Your task to perform on an android device: turn on airplane mode Image 0: 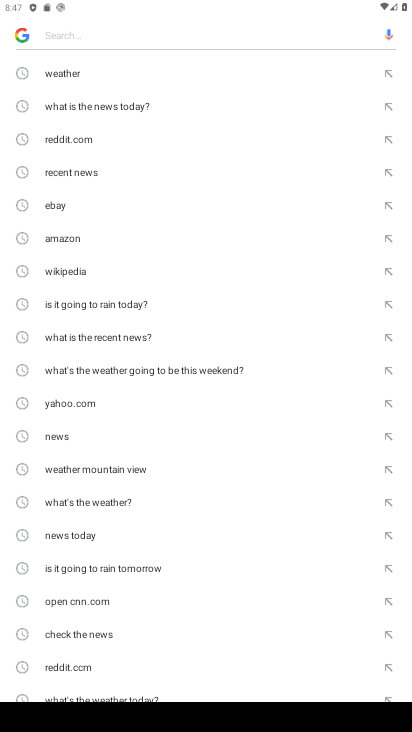
Step 0: press home button
Your task to perform on an android device: turn on airplane mode Image 1: 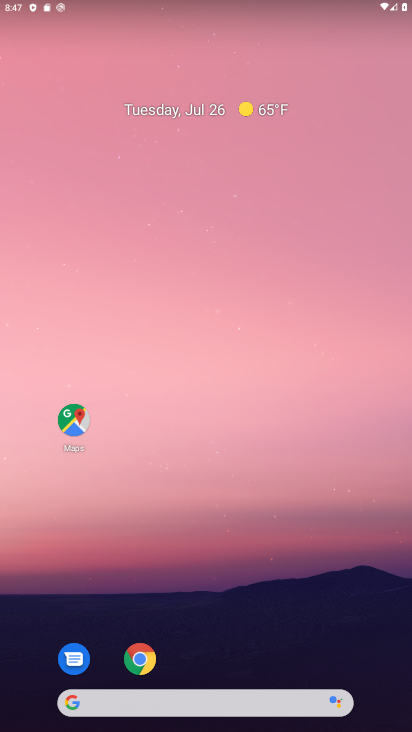
Step 1: drag from (251, 589) to (220, 287)
Your task to perform on an android device: turn on airplane mode Image 2: 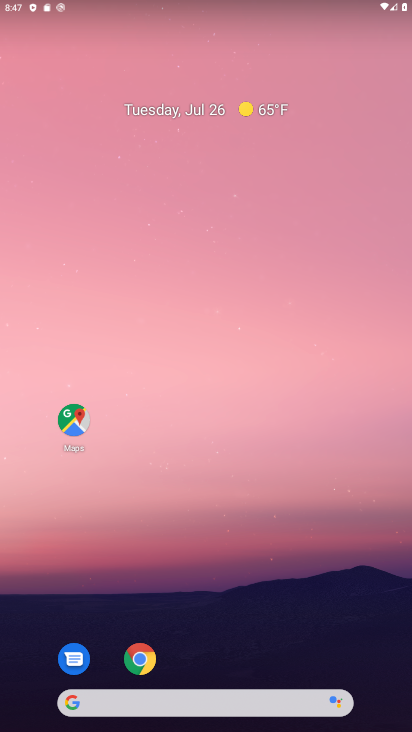
Step 2: drag from (187, 625) to (236, 205)
Your task to perform on an android device: turn on airplane mode Image 3: 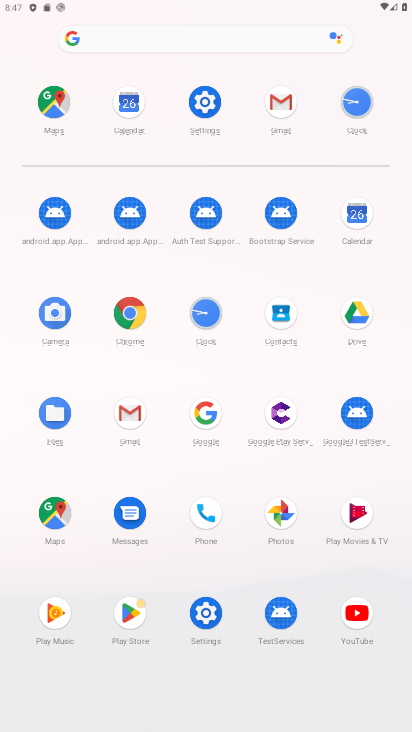
Step 3: click (205, 124)
Your task to perform on an android device: turn on airplane mode Image 4: 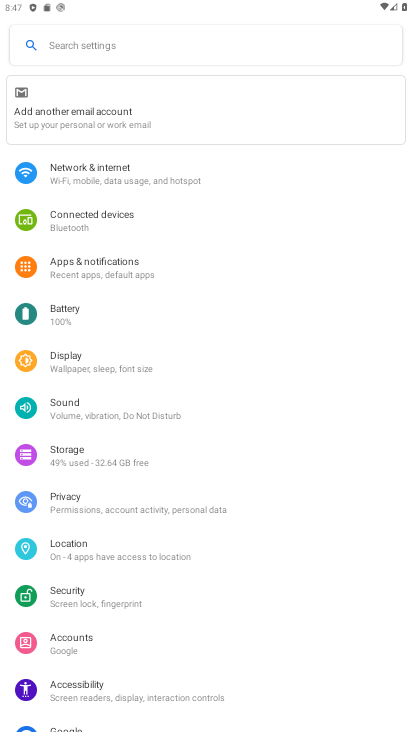
Step 4: click (142, 182)
Your task to perform on an android device: turn on airplane mode Image 5: 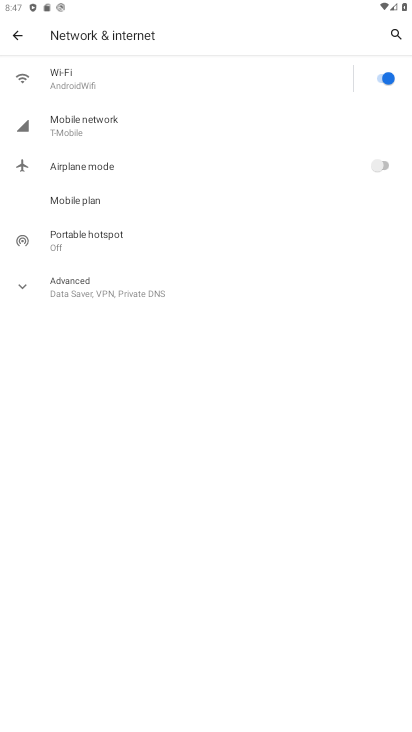
Step 5: click (189, 166)
Your task to perform on an android device: turn on airplane mode Image 6: 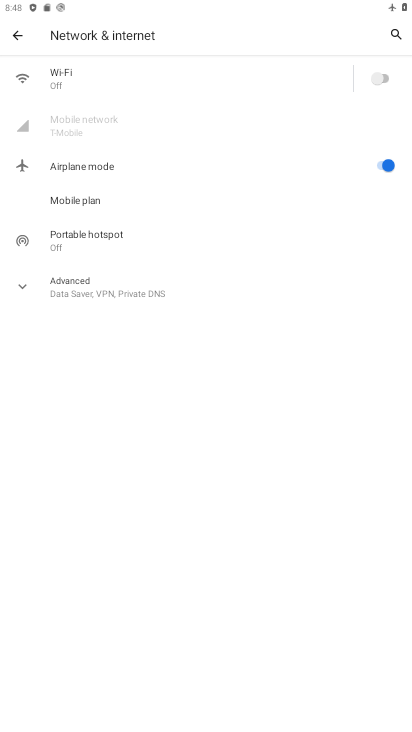
Step 6: task complete